Your task to perform on an android device: What's the latest video from IGN? Image 0: 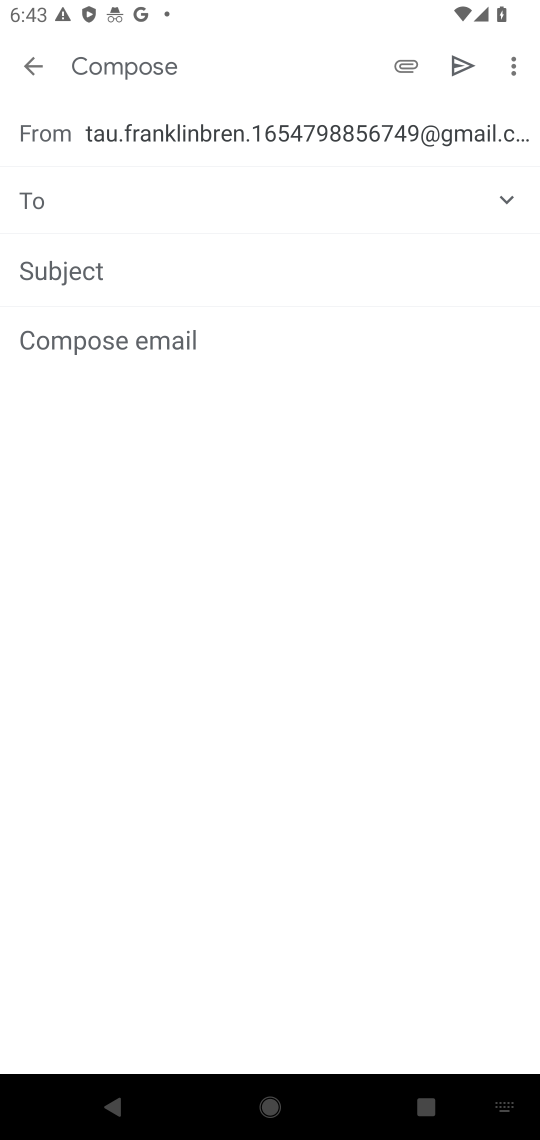
Step 0: press home button
Your task to perform on an android device: What's the latest video from IGN? Image 1: 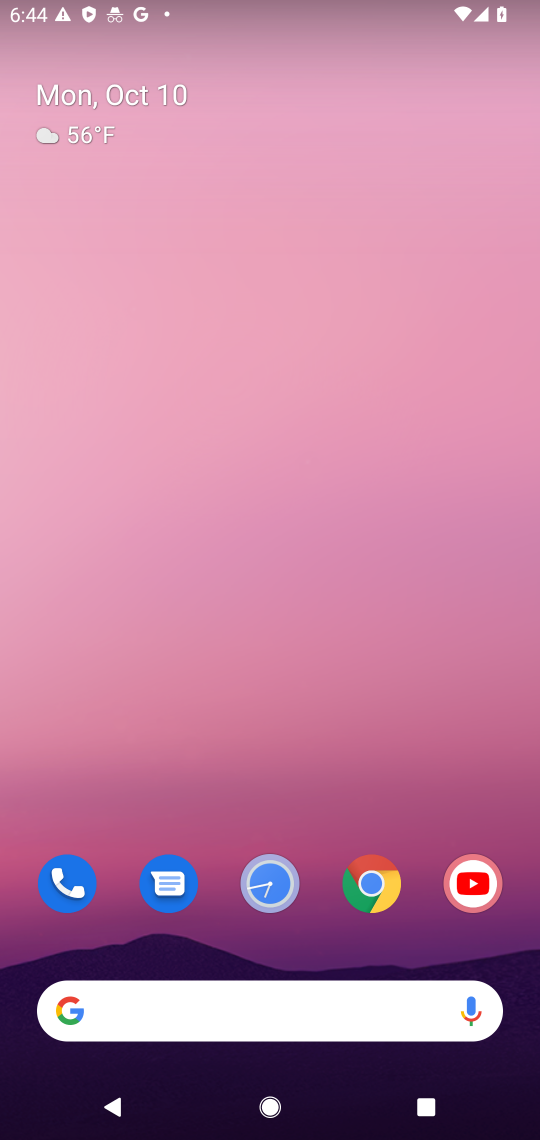
Step 1: drag from (267, 938) to (271, 849)
Your task to perform on an android device: What's the latest video from IGN? Image 2: 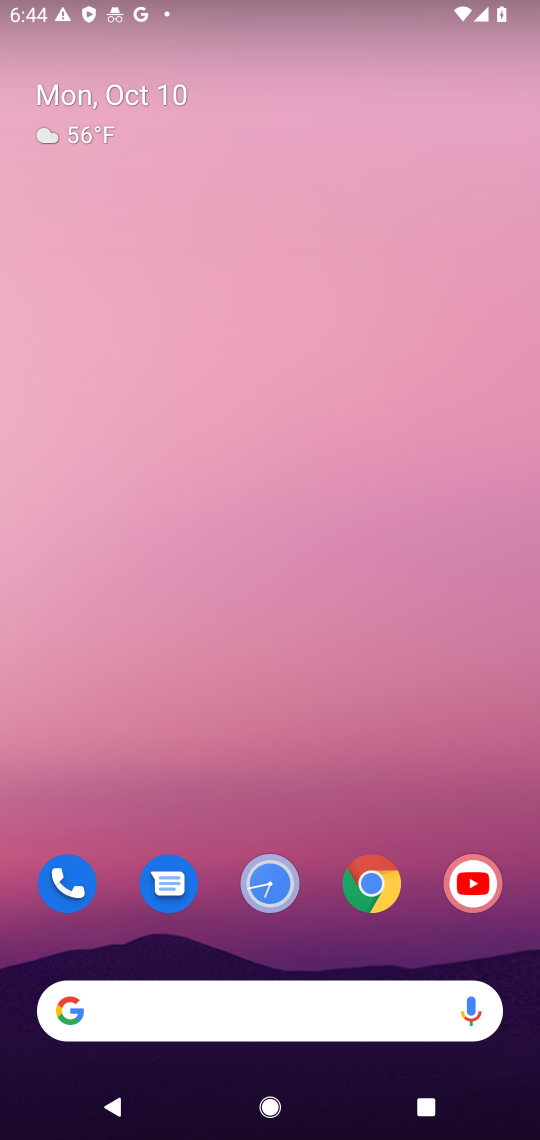
Step 2: click (479, 893)
Your task to perform on an android device: What's the latest video from IGN? Image 3: 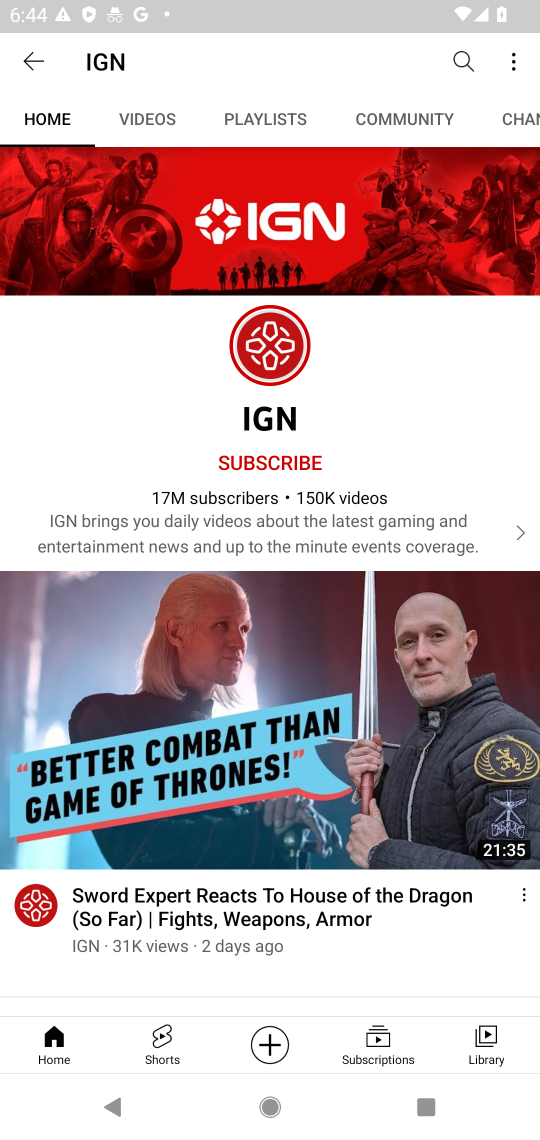
Step 3: task complete